Your task to perform on an android device: Open eBay Image 0: 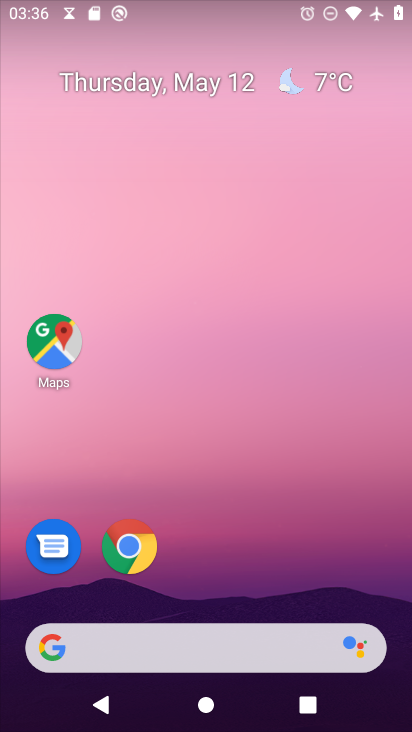
Step 0: drag from (168, 649) to (269, 227)
Your task to perform on an android device: Open eBay Image 1: 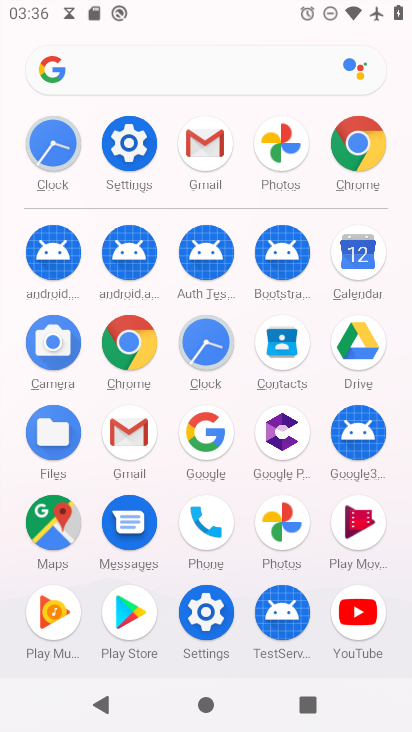
Step 1: click (361, 161)
Your task to perform on an android device: Open eBay Image 2: 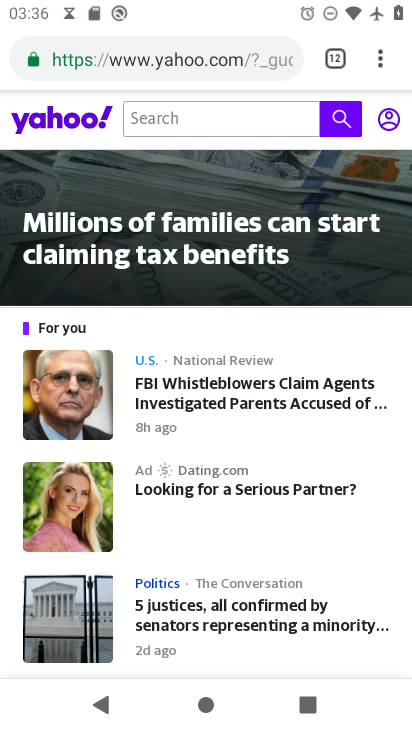
Step 2: drag from (381, 66) to (251, 114)
Your task to perform on an android device: Open eBay Image 3: 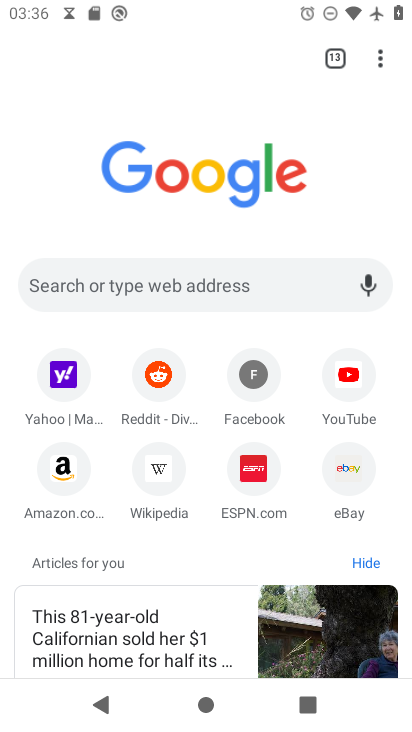
Step 3: click (351, 472)
Your task to perform on an android device: Open eBay Image 4: 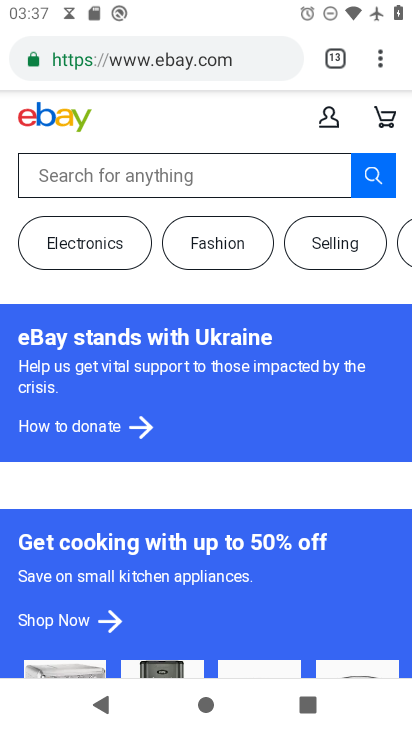
Step 4: task complete